Your task to perform on an android device: set the timer Image 0: 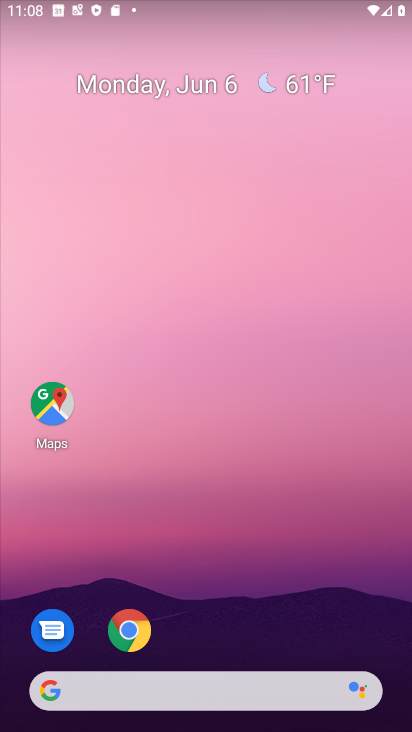
Step 0: drag from (374, 619) to (353, 170)
Your task to perform on an android device: set the timer Image 1: 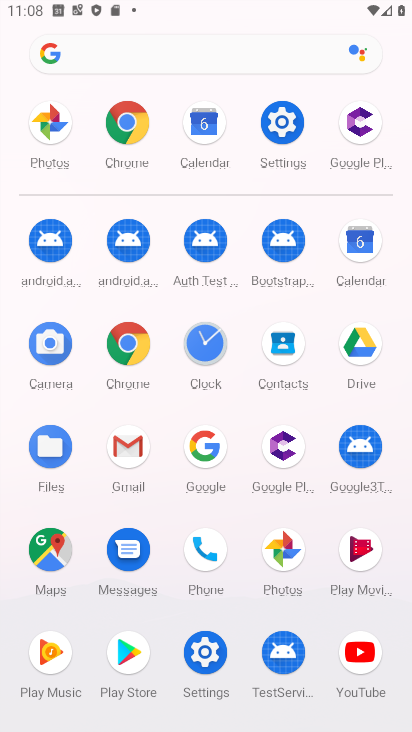
Step 1: click (212, 342)
Your task to perform on an android device: set the timer Image 2: 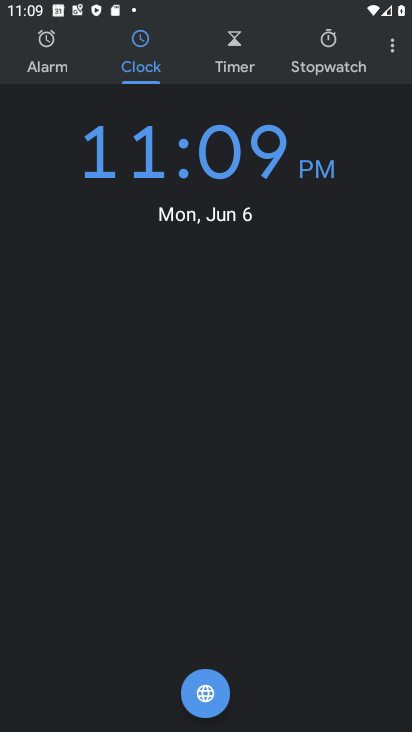
Step 2: click (248, 53)
Your task to perform on an android device: set the timer Image 3: 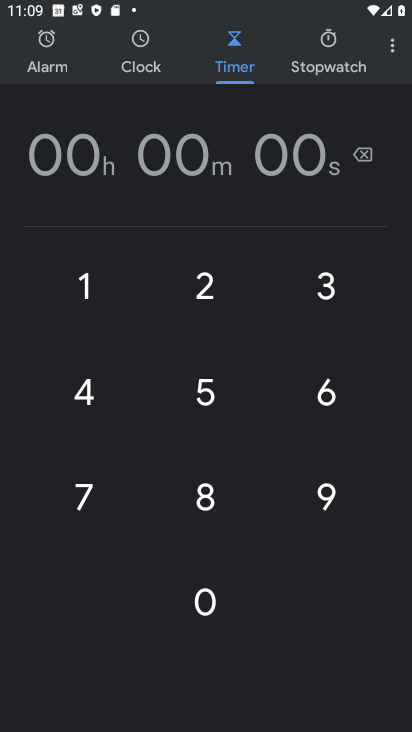
Step 3: click (98, 289)
Your task to perform on an android device: set the timer Image 4: 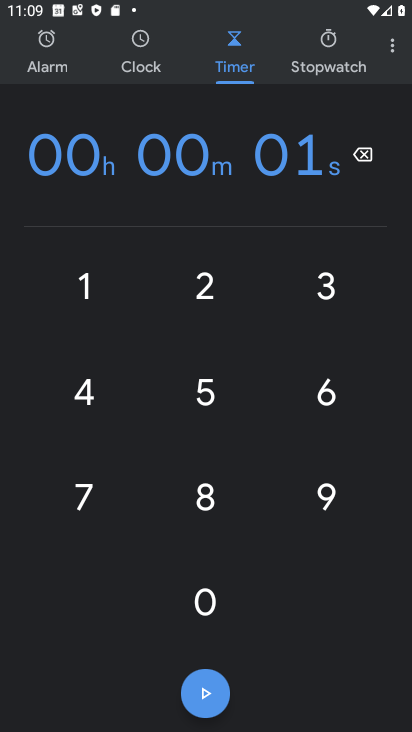
Step 4: click (217, 284)
Your task to perform on an android device: set the timer Image 5: 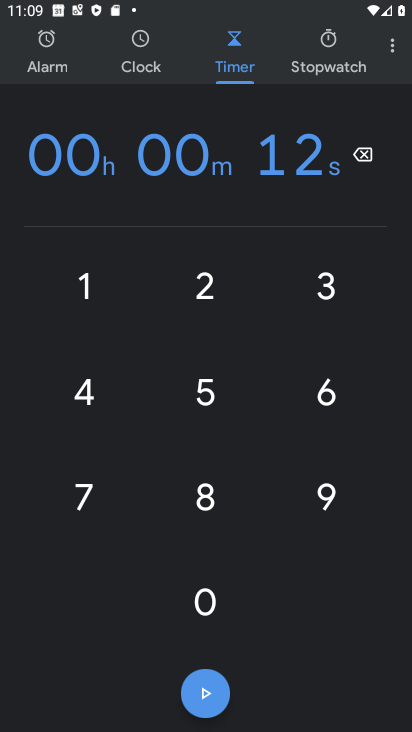
Step 5: click (199, 715)
Your task to perform on an android device: set the timer Image 6: 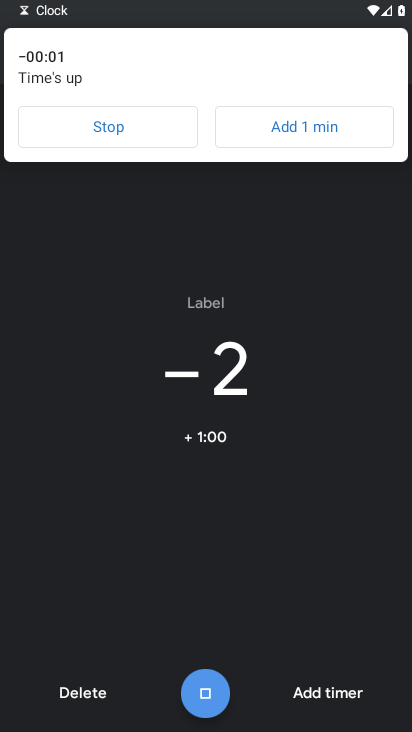
Step 6: click (101, 133)
Your task to perform on an android device: set the timer Image 7: 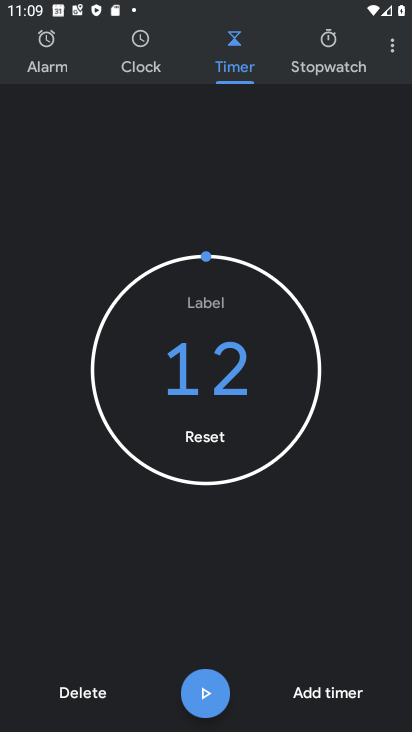
Step 7: task complete